Your task to perform on an android device: Add panasonic triple a to the cart on costco.com, then select checkout. Image 0: 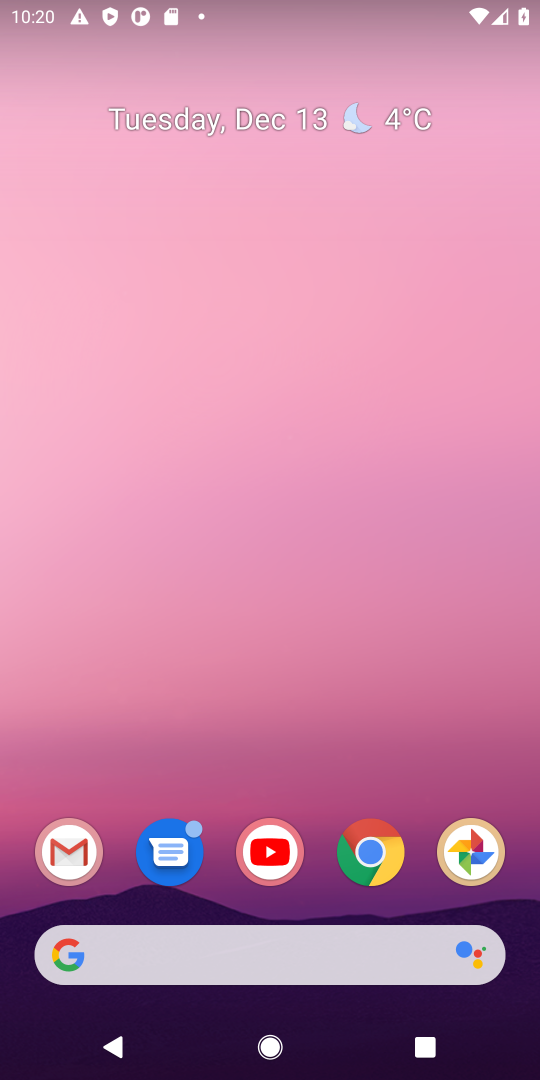
Step 0: press home button
Your task to perform on an android device: Add panasonic triple a to the cart on costco.com, then select checkout. Image 1: 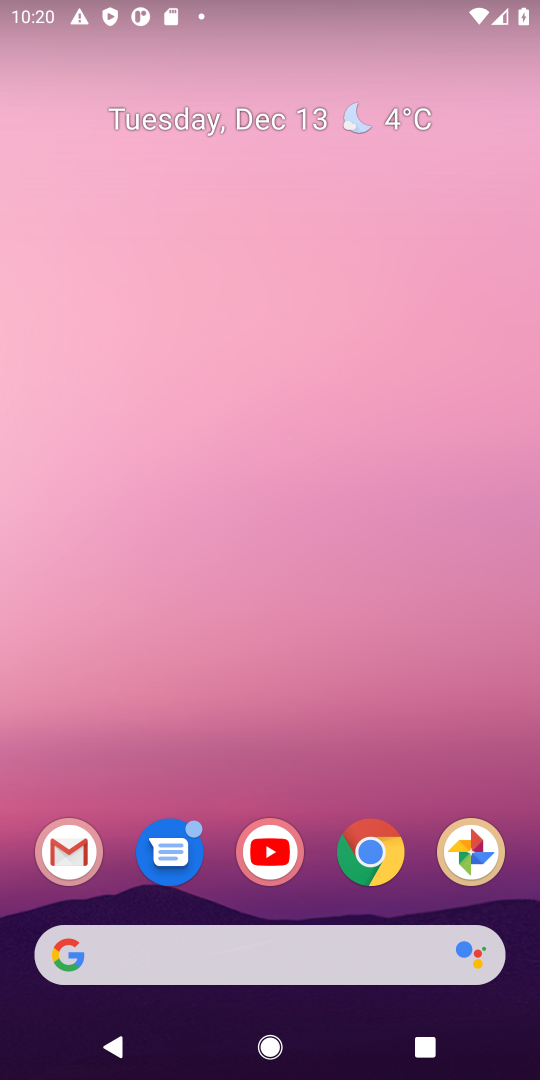
Step 1: click (95, 955)
Your task to perform on an android device: Add panasonic triple a to the cart on costco.com, then select checkout. Image 2: 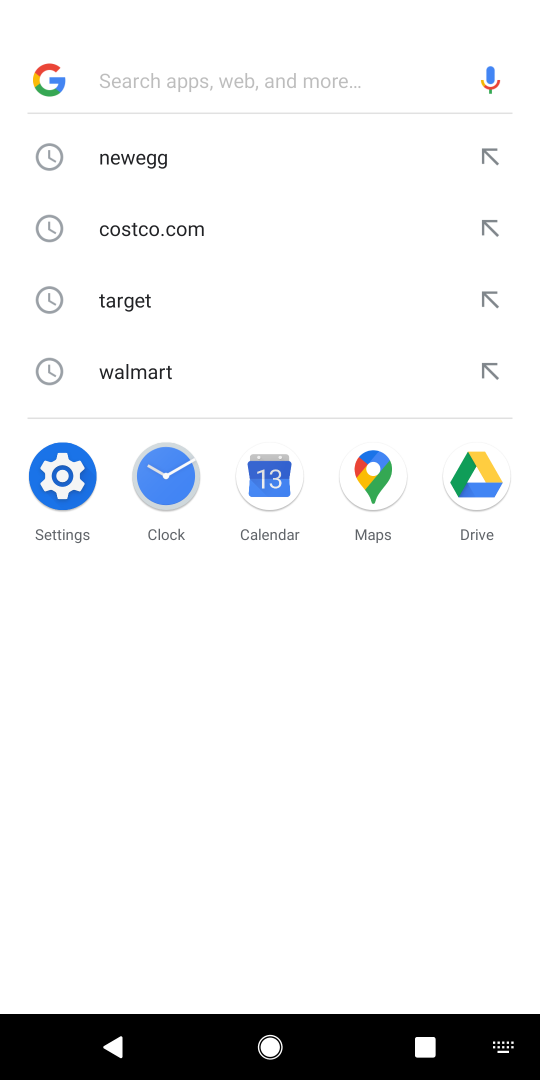
Step 2: type "costco.com"
Your task to perform on an android device: Add panasonic triple a to the cart on costco.com, then select checkout. Image 3: 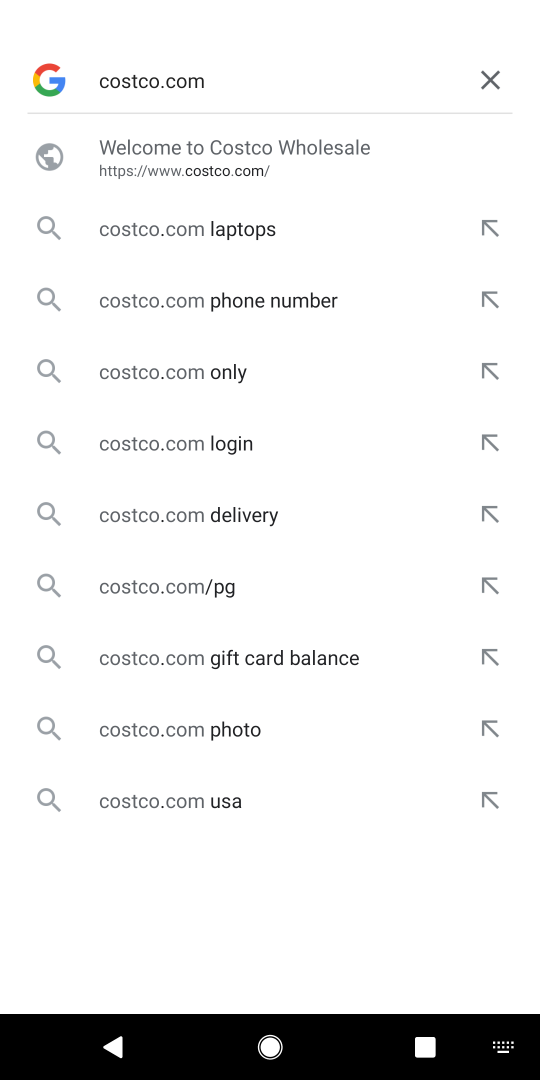
Step 3: press enter
Your task to perform on an android device: Add panasonic triple a to the cart on costco.com, then select checkout. Image 4: 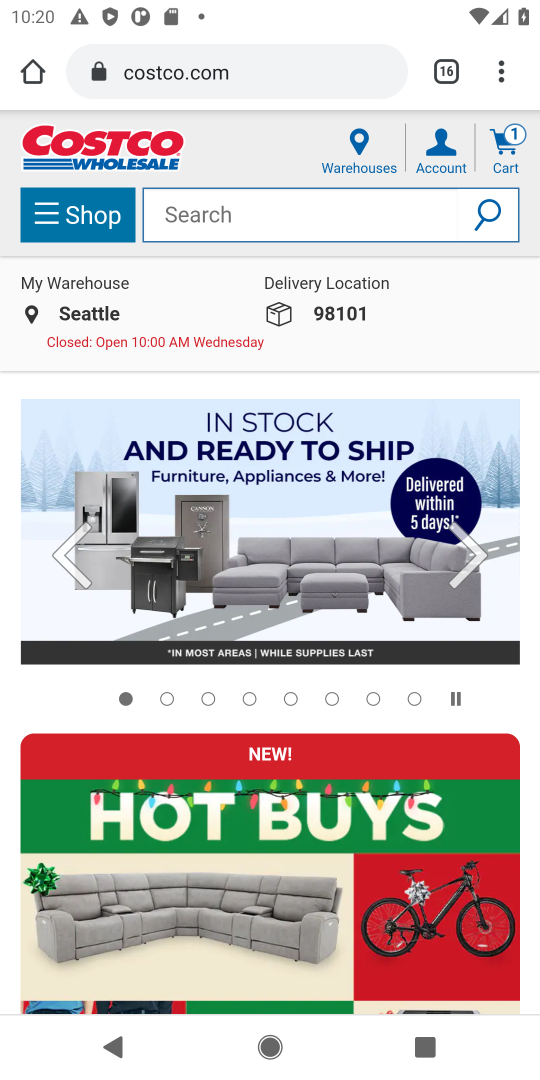
Step 4: click (253, 225)
Your task to perform on an android device: Add panasonic triple a to the cart on costco.com, then select checkout. Image 5: 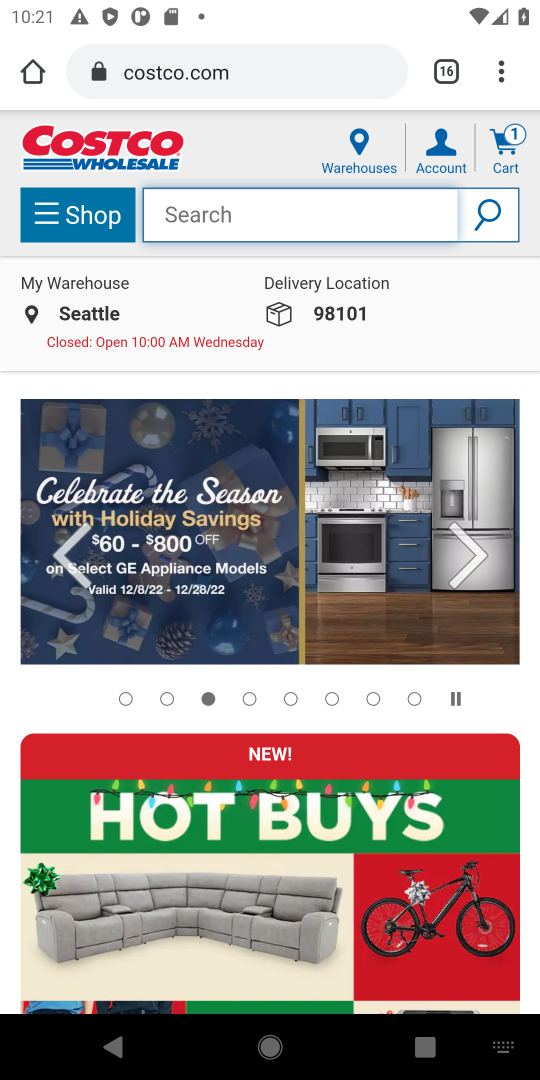
Step 5: type "panasonic triple a"
Your task to perform on an android device: Add panasonic triple a to the cart on costco.com, then select checkout. Image 6: 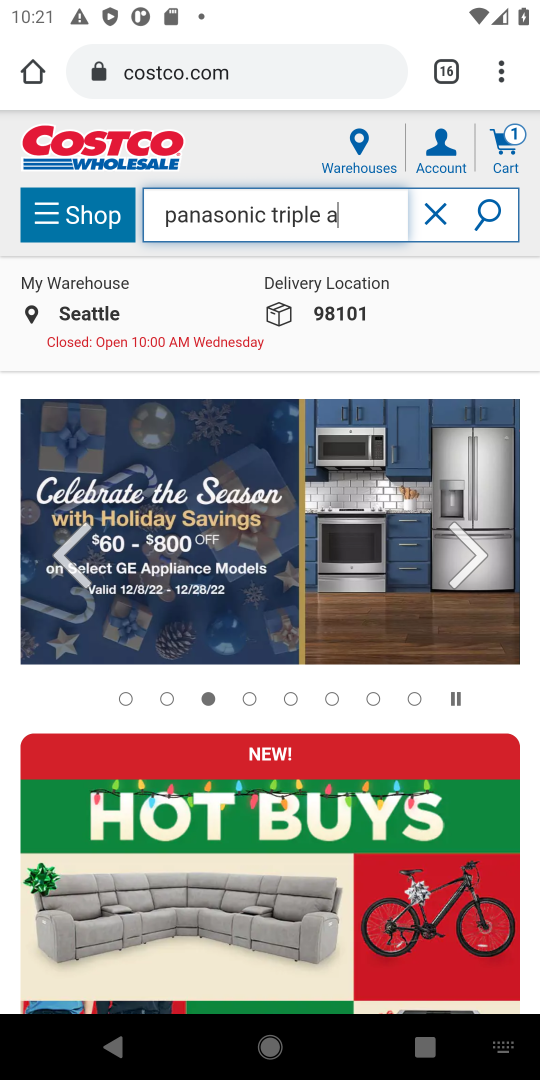
Step 6: press enter
Your task to perform on an android device: Add panasonic triple a to the cart on costco.com, then select checkout. Image 7: 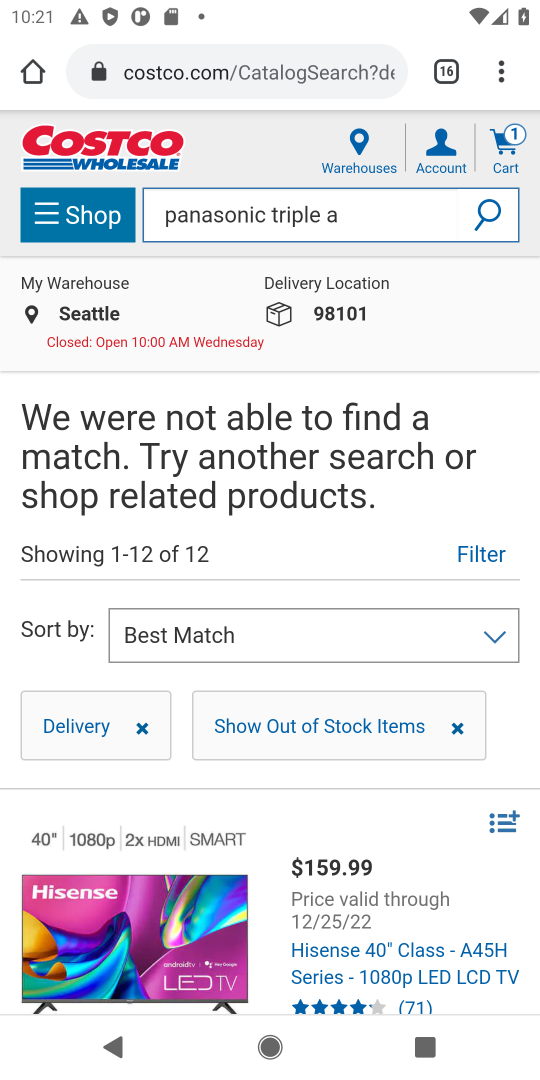
Step 7: task complete